Your task to perform on an android device: open wifi settings Image 0: 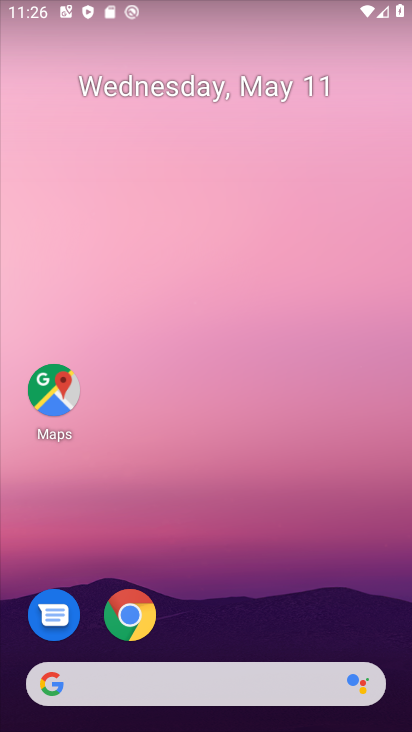
Step 0: drag from (225, 537) to (170, 49)
Your task to perform on an android device: open wifi settings Image 1: 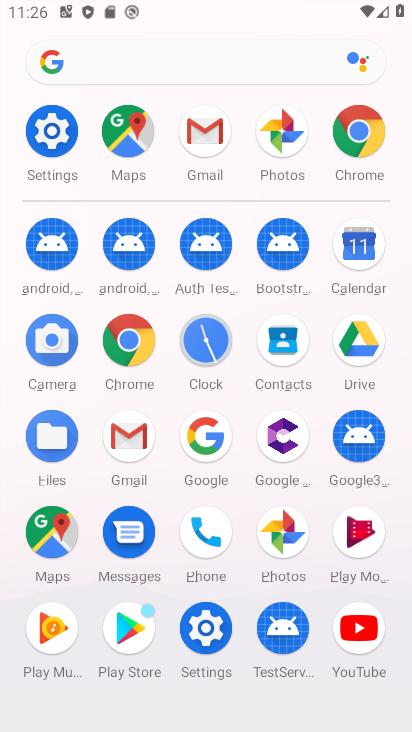
Step 1: click (58, 131)
Your task to perform on an android device: open wifi settings Image 2: 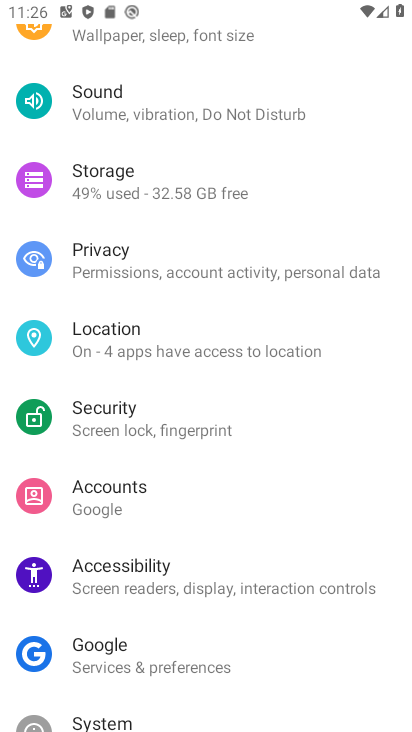
Step 2: drag from (220, 231) to (218, 707)
Your task to perform on an android device: open wifi settings Image 3: 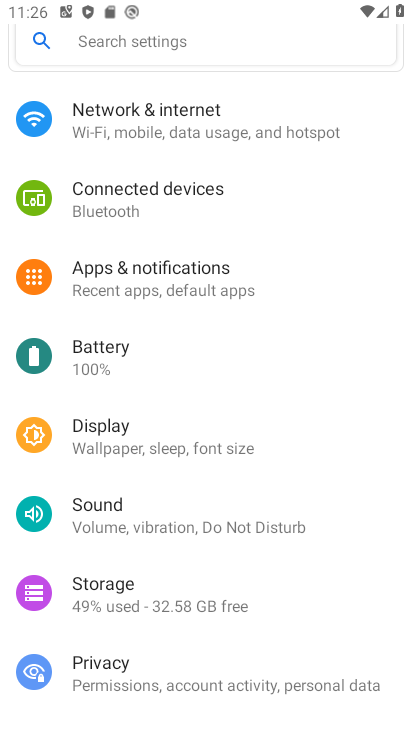
Step 3: drag from (216, 215) to (216, 707)
Your task to perform on an android device: open wifi settings Image 4: 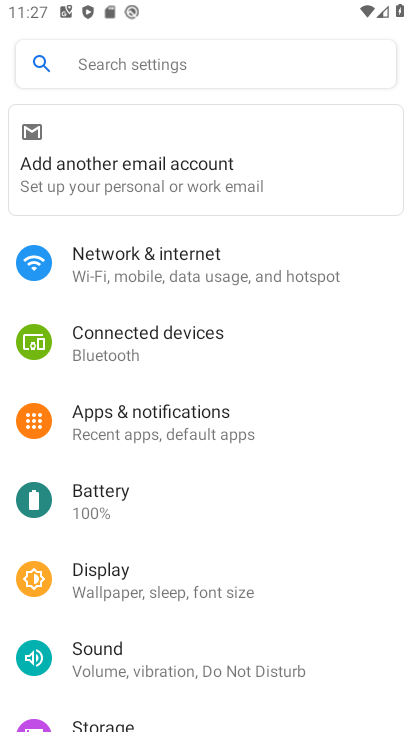
Step 4: click (144, 268)
Your task to perform on an android device: open wifi settings Image 5: 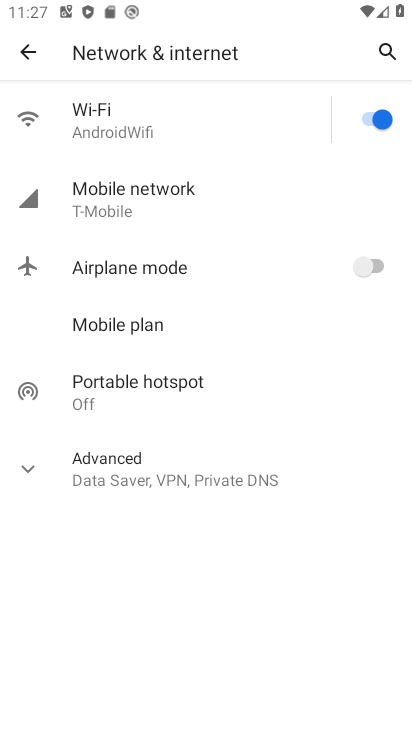
Step 5: click (125, 110)
Your task to perform on an android device: open wifi settings Image 6: 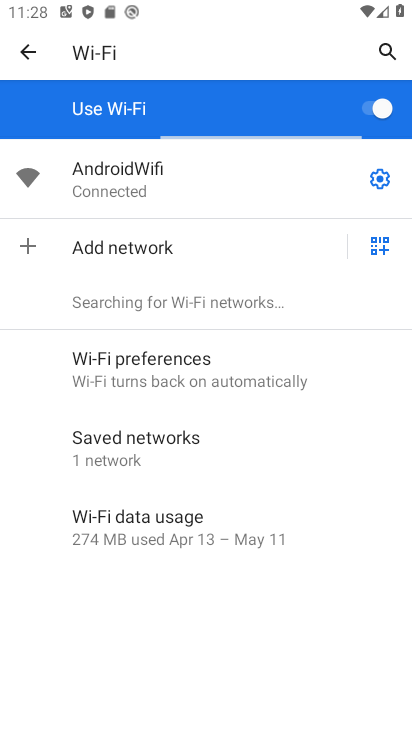
Step 6: task complete